Your task to perform on an android device: Check the news Image 0: 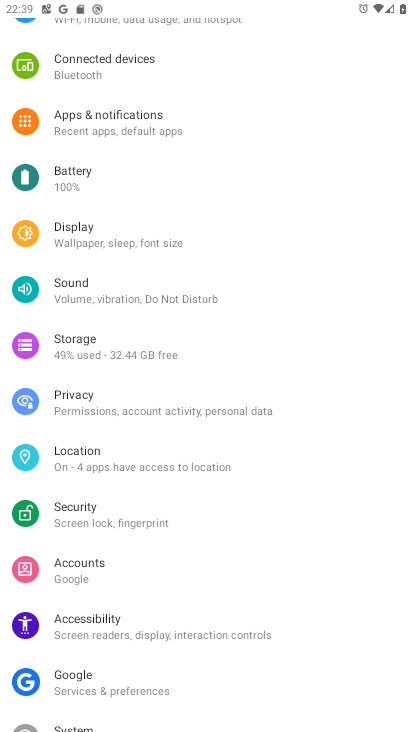
Step 0: press home button
Your task to perform on an android device: Check the news Image 1: 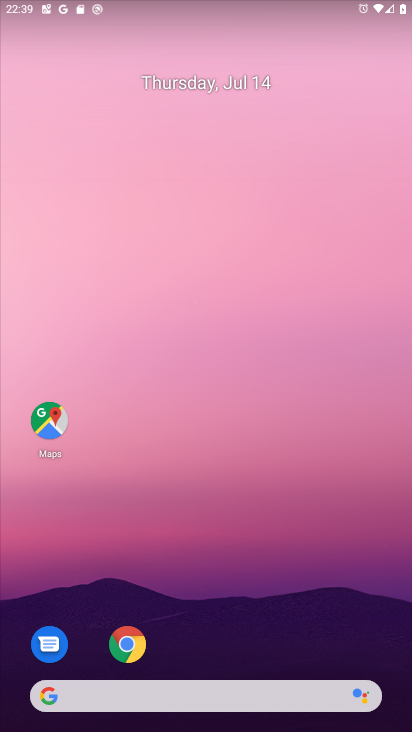
Step 1: click (78, 693)
Your task to perform on an android device: Check the news Image 2: 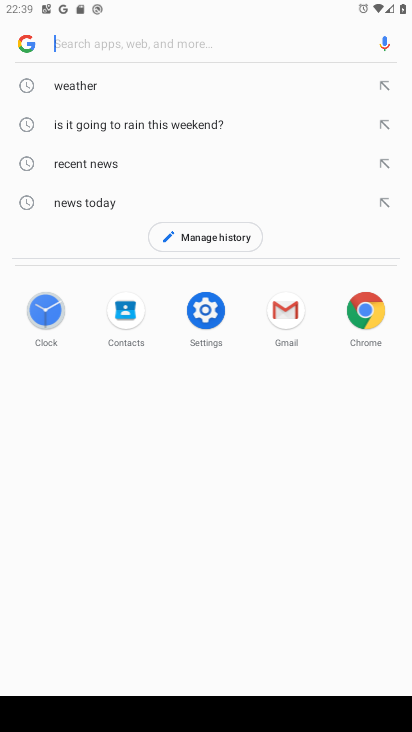
Step 2: click (26, 50)
Your task to perform on an android device: Check the news Image 3: 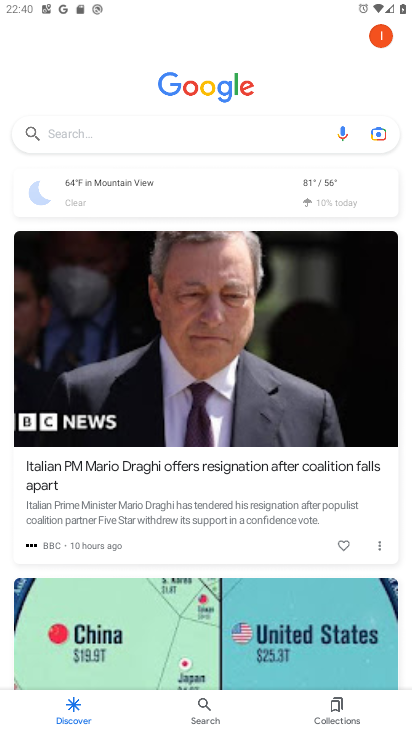
Step 3: task complete